Your task to perform on an android device: add a contact Image 0: 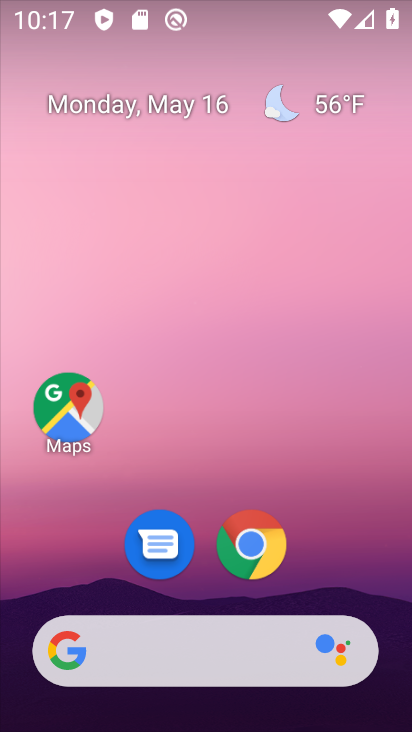
Step 0: drag from (98, 605) to (215, 113)
Your task to perform on an android device: add a contact Image 1: 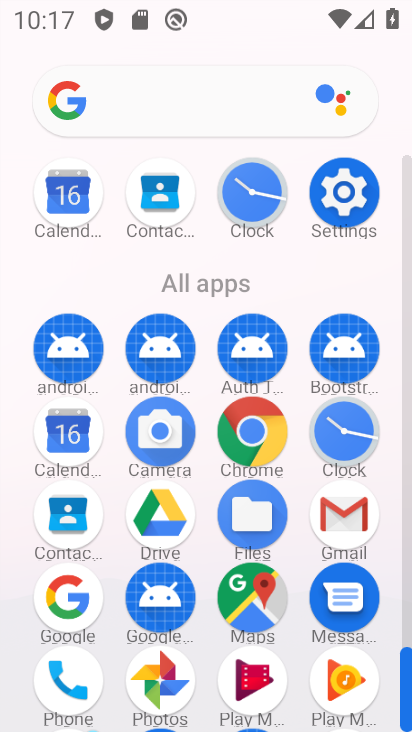
Step 1: click (84, 522)
Your task to perform on an android device: add a contact Image 2: 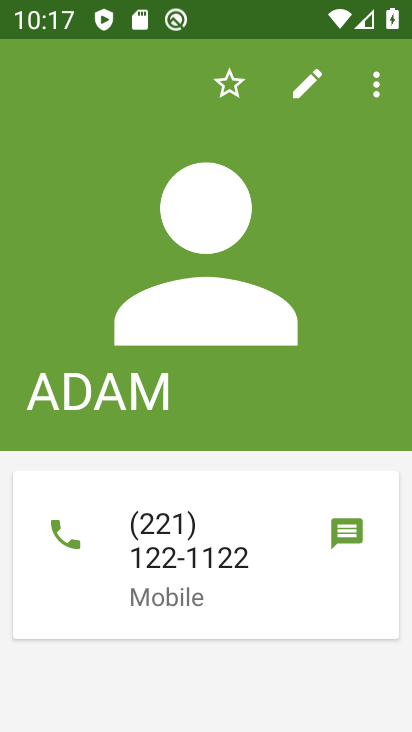
Step 2: press back button
Your task to perform on an android device: add a contact Image 3: 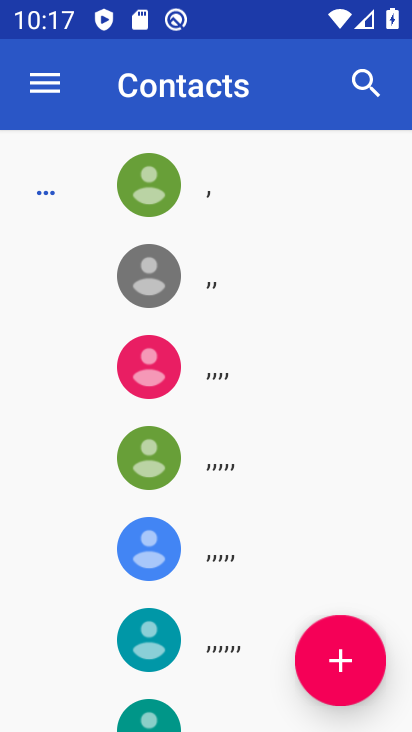
Step 3: click (348, 658)
Your task to perform on an android device: add a contact Image 4: 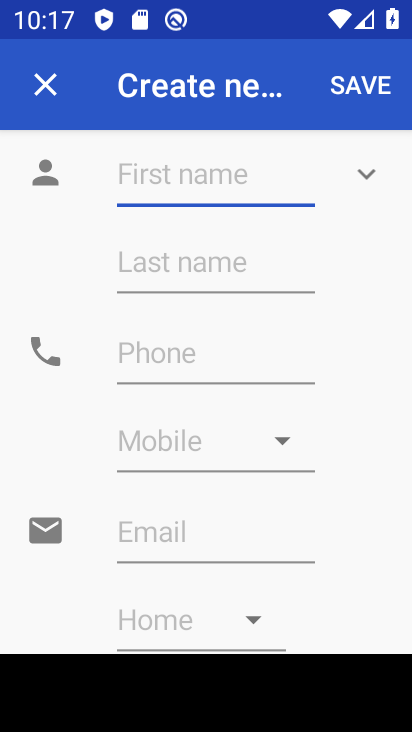
Step 4: type "EVE"
Your task to perform on an android device: add a contact Image 5: 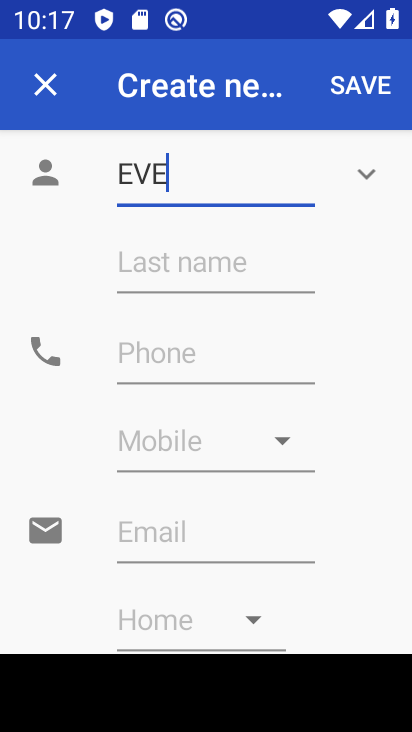
Step 5: click (162, 361)
Your task to perform on an android device: add a contact Image 6: 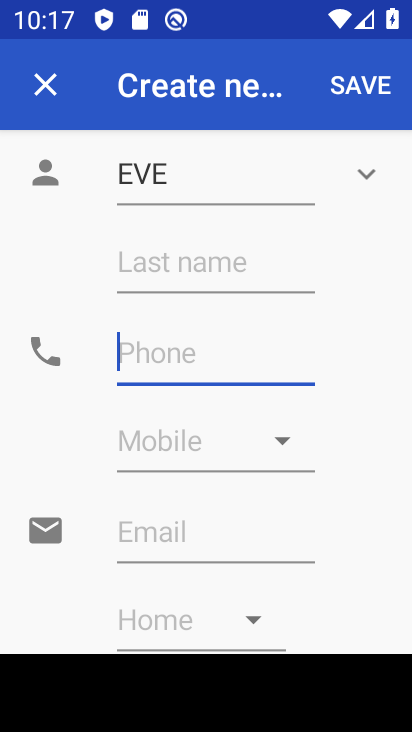
Step 6: type "12122211112"
Your task to perform on an android device: add a contact Image 7: 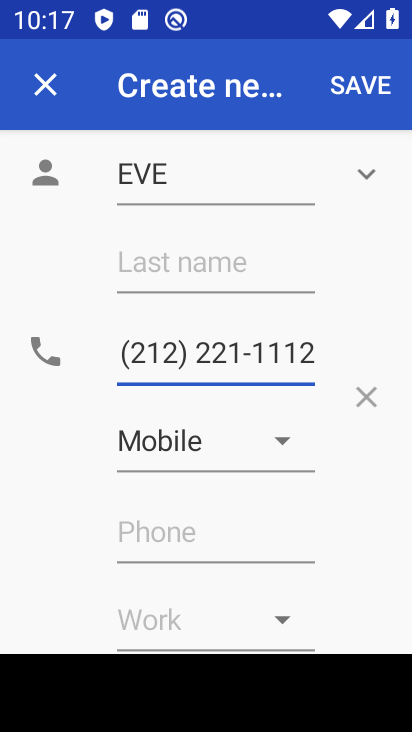
Step 7: click (387, 68)
Your task to perform on an android device: add a contact Image 8: 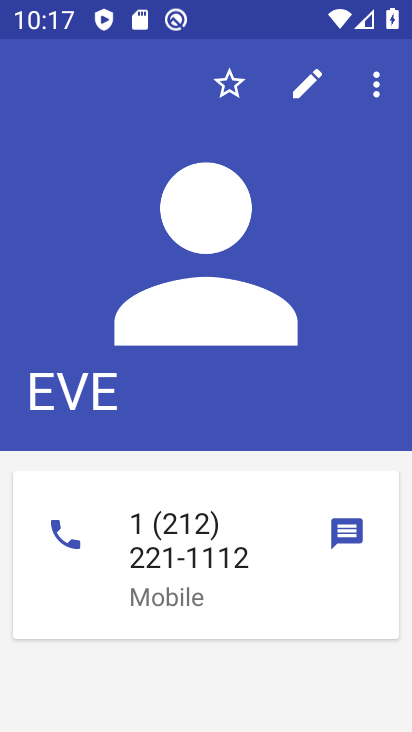
Step 8: task complete